Your task to perform on an android device: Open calendar and show me the second week of next month Image 0: 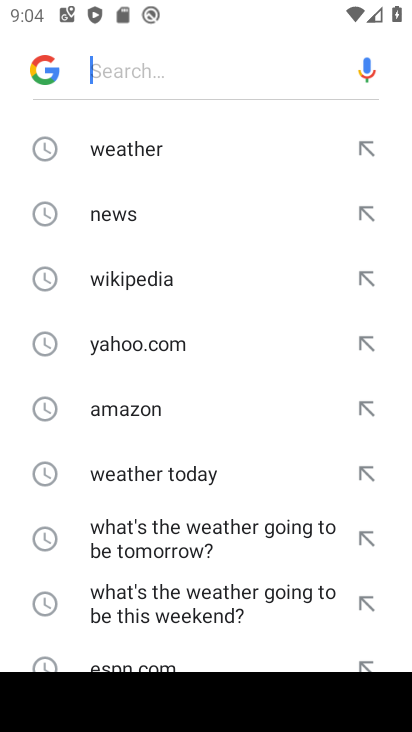
Step 0: press home button
Your task to perform on an android device: Open calendar and show me the second week of next month Image 1: 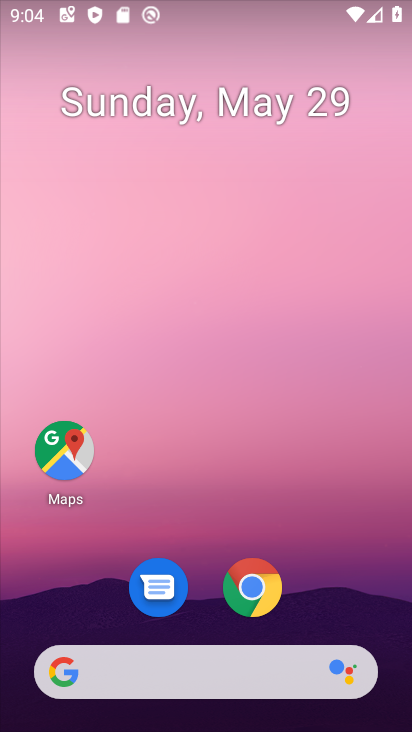
Step 1: drag from (262, 415) to (317, 5)
Your task to perform on an android device: Open calendar and show me the second week of next month Image 2: 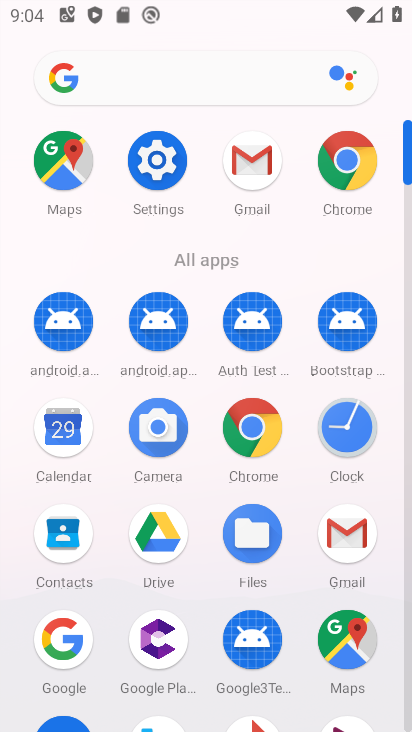
Step 2: click (66, 435)
Your task to perform on an android device: Open calendar and show me the second week of next month Image 3: 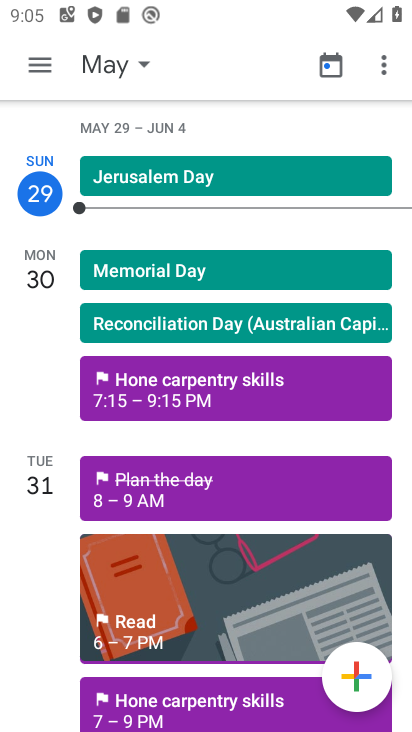
Step 3: click (144, 57)
Your task to perform on an android device: Open calendar and show me the second week of next month Image 4: 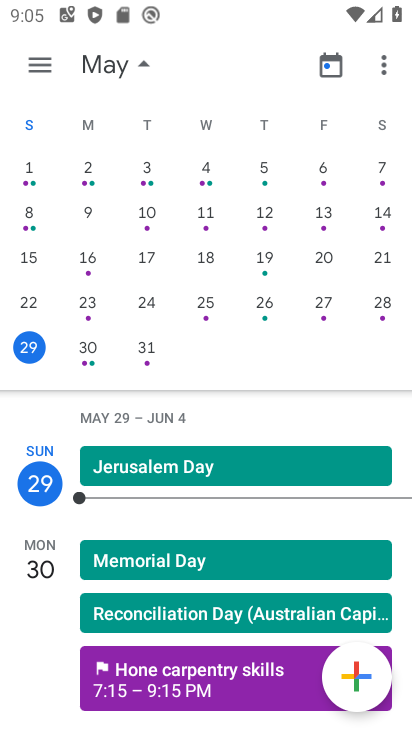
Step 4: drag from (387, 238) to (0, 232)
Your task to perform on an android device: Open calendar and show me the second week of next month Image 5: 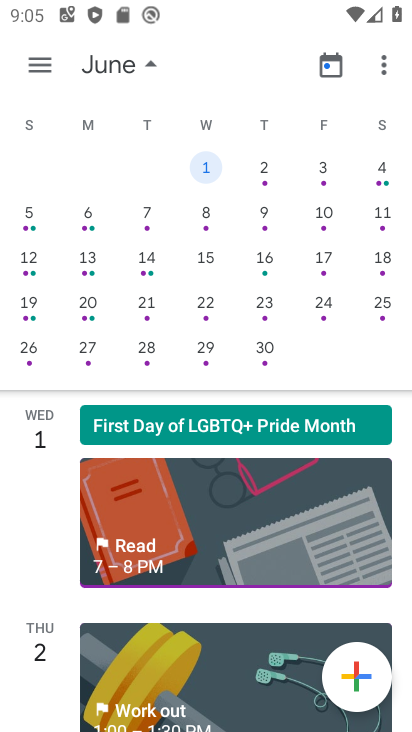
Step 5: click (89, 210)
Your task to perform on an android device: Open calendar and show me the second week of next month Image 6: 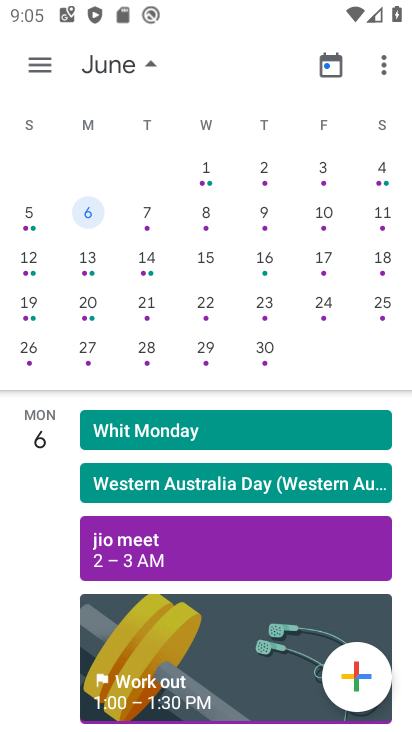
Step 6: task complete